Your task to perform on an android device: Open the calendar app, open the side menu, and click the "Day" option Image 0: 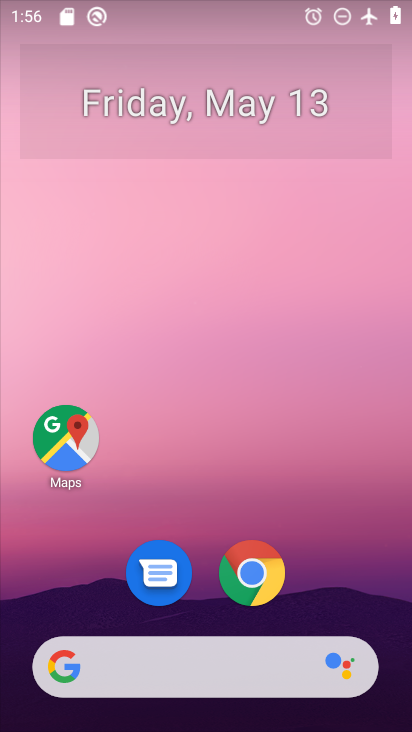
Step 0: drag from (151, 710) to (188, 113)
Your task to perform on an android device: Open the calendar app, open the side menu, and click the "Day" option Image 1: 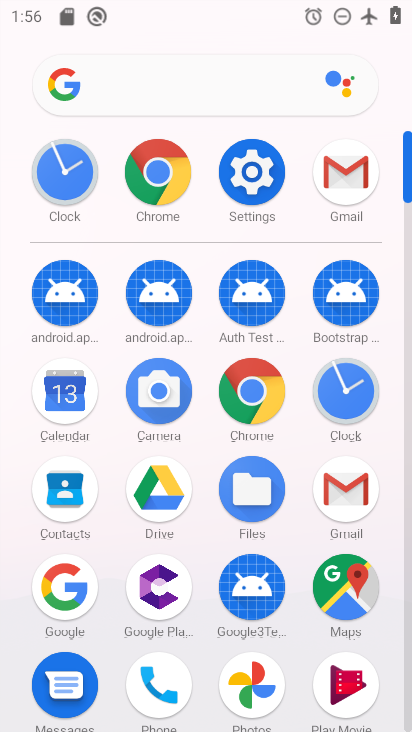
Step 1: click (58, 396)
Your task to perform on an android device: Open the calendar app, open the side menu, and click the "Day" option Image 2: 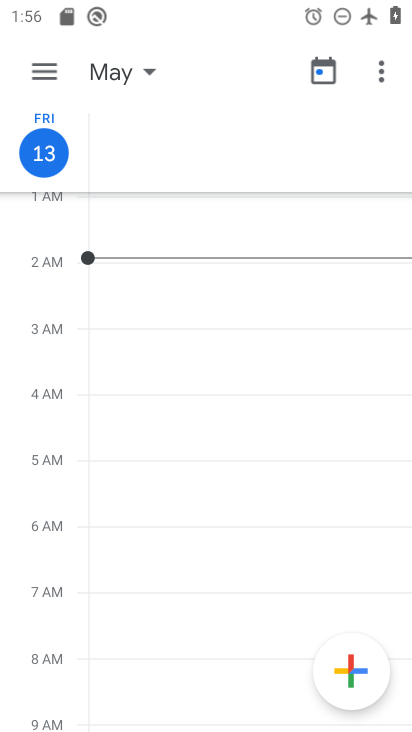
Step 2: click (39, 68)
Your task to perform on an android device: Open the calendar app, open the side menu, and click the "Day" option Image 3: 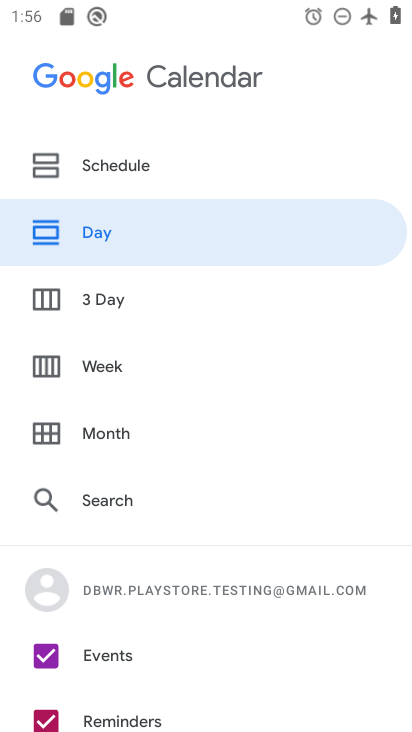
Step 3: click (94, 236)
Your task to perform on an android device: Open the calendar app, open the side menu, and click the "Day" option Image 4: 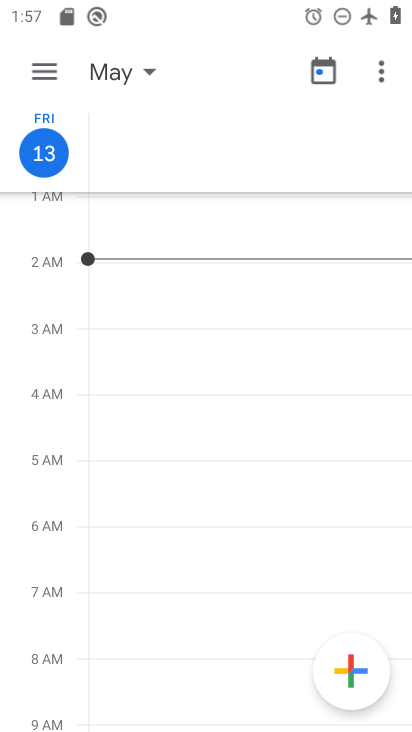
Step 4: task complete